Your task to perform on an android device: check battery use Image 0: 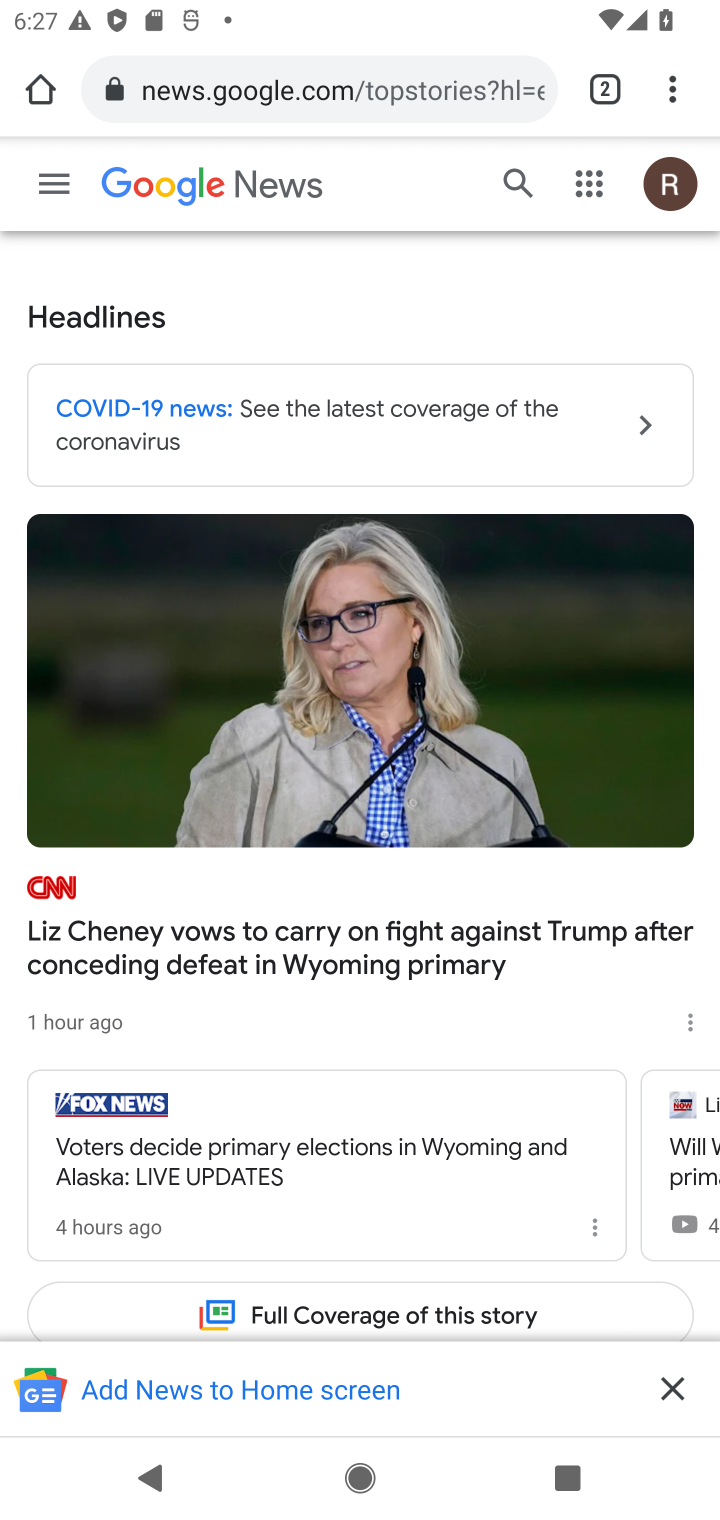
Step 0: click (663, 94)
Your task to perform on an android device: check battery use Image 1: 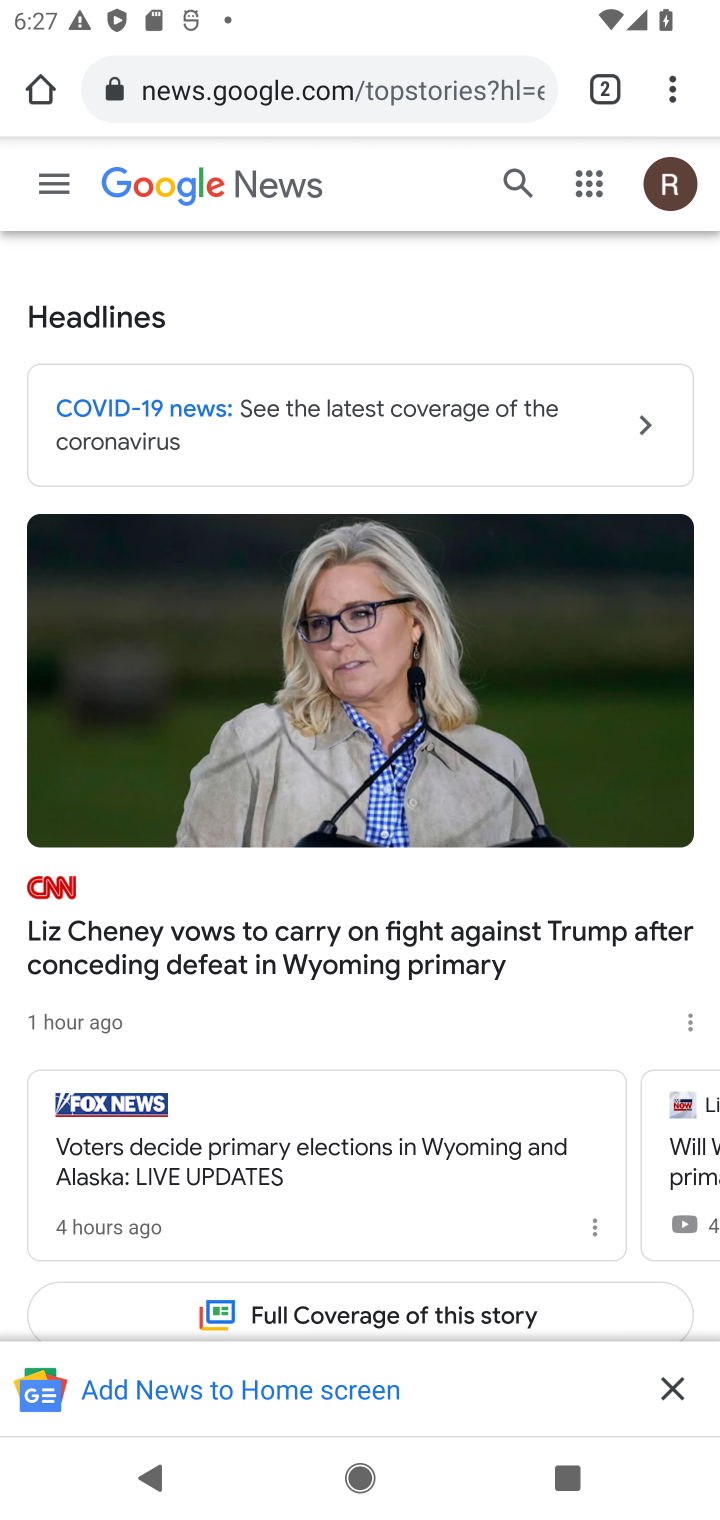
Step 1: press home button
Your task to perform on an android device: check battery use Image 2: 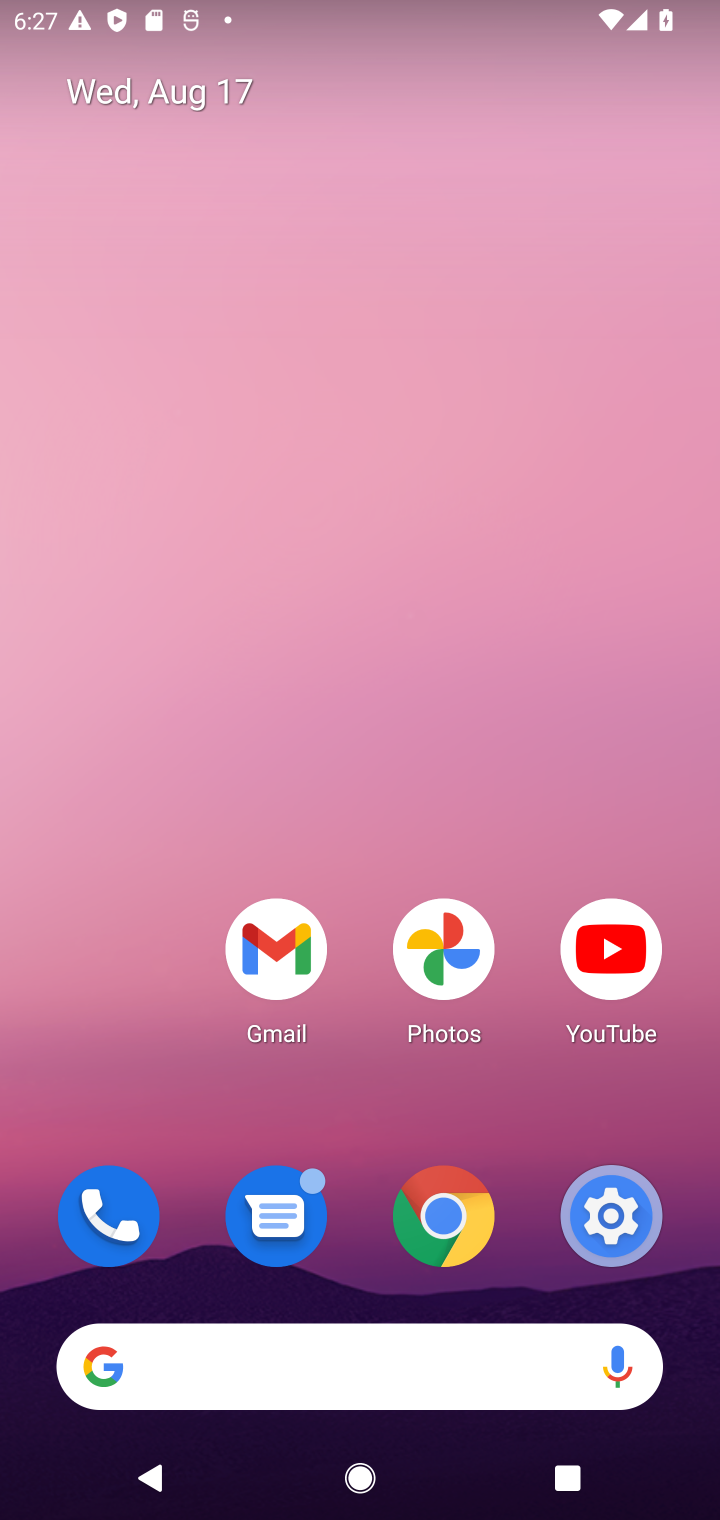
Step 2: click (625, 1222)
Your task to perform on an android device: check battery use Image 3: 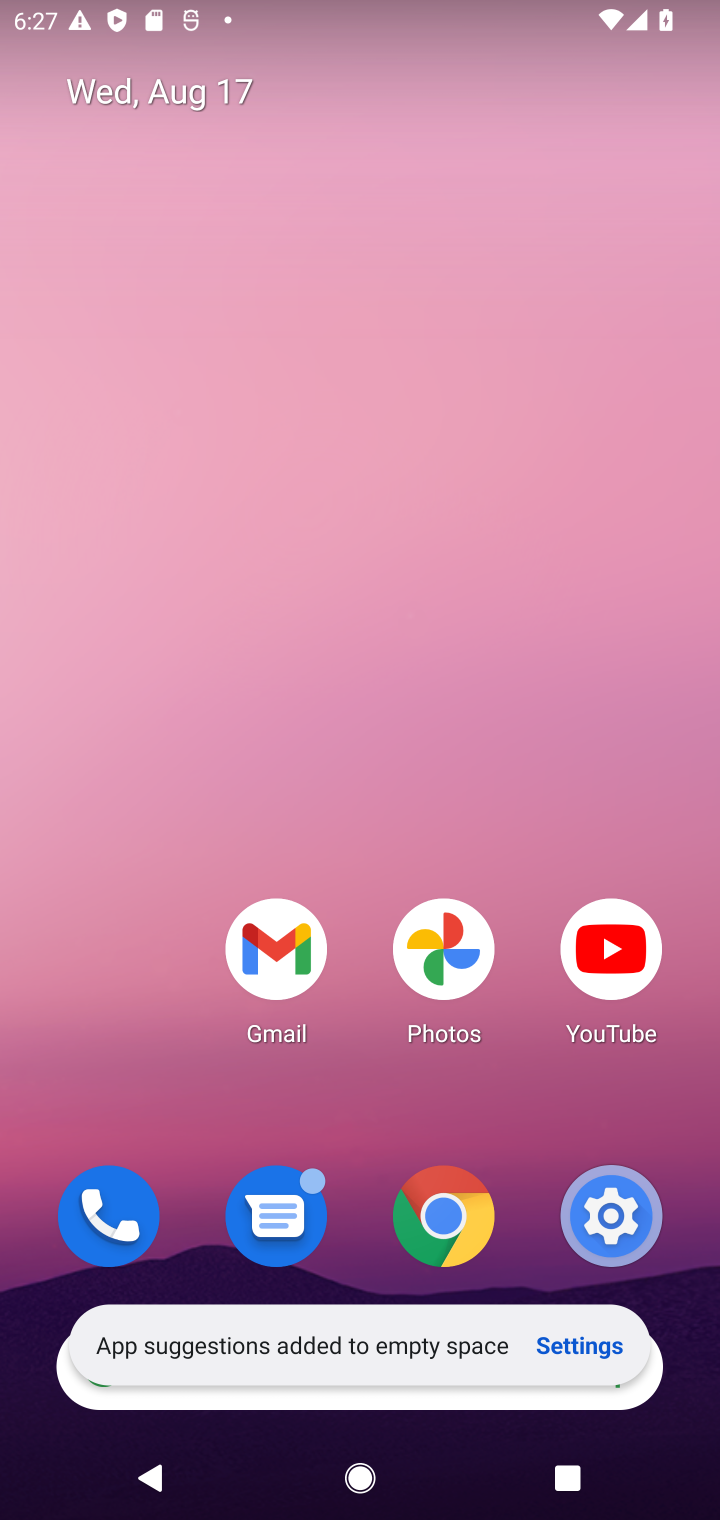
Step 3: click (622, 1222)
Your task to perform on an android device: check battery use Image 4: 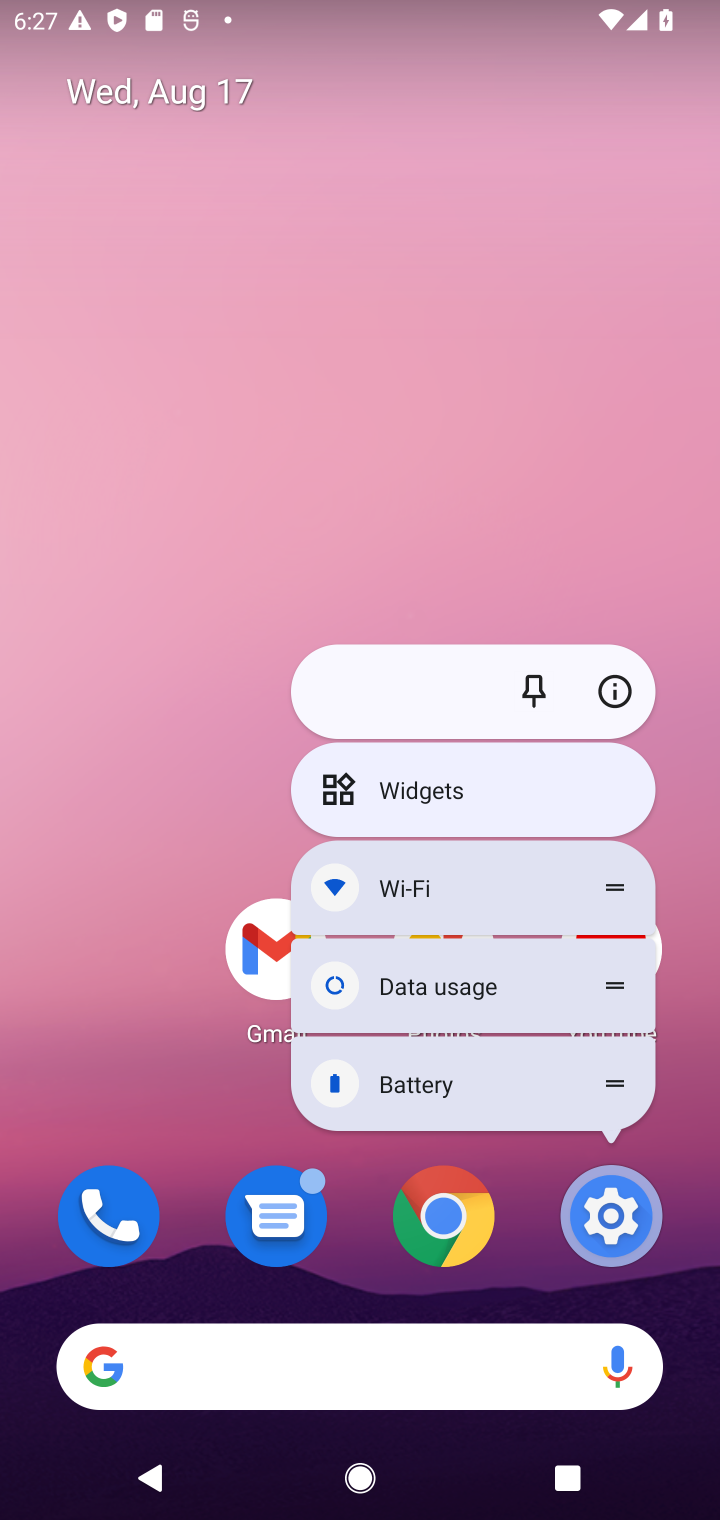
Step 4: click (613, 1203)
Your task to perform on an android device: check battery use Image 5: 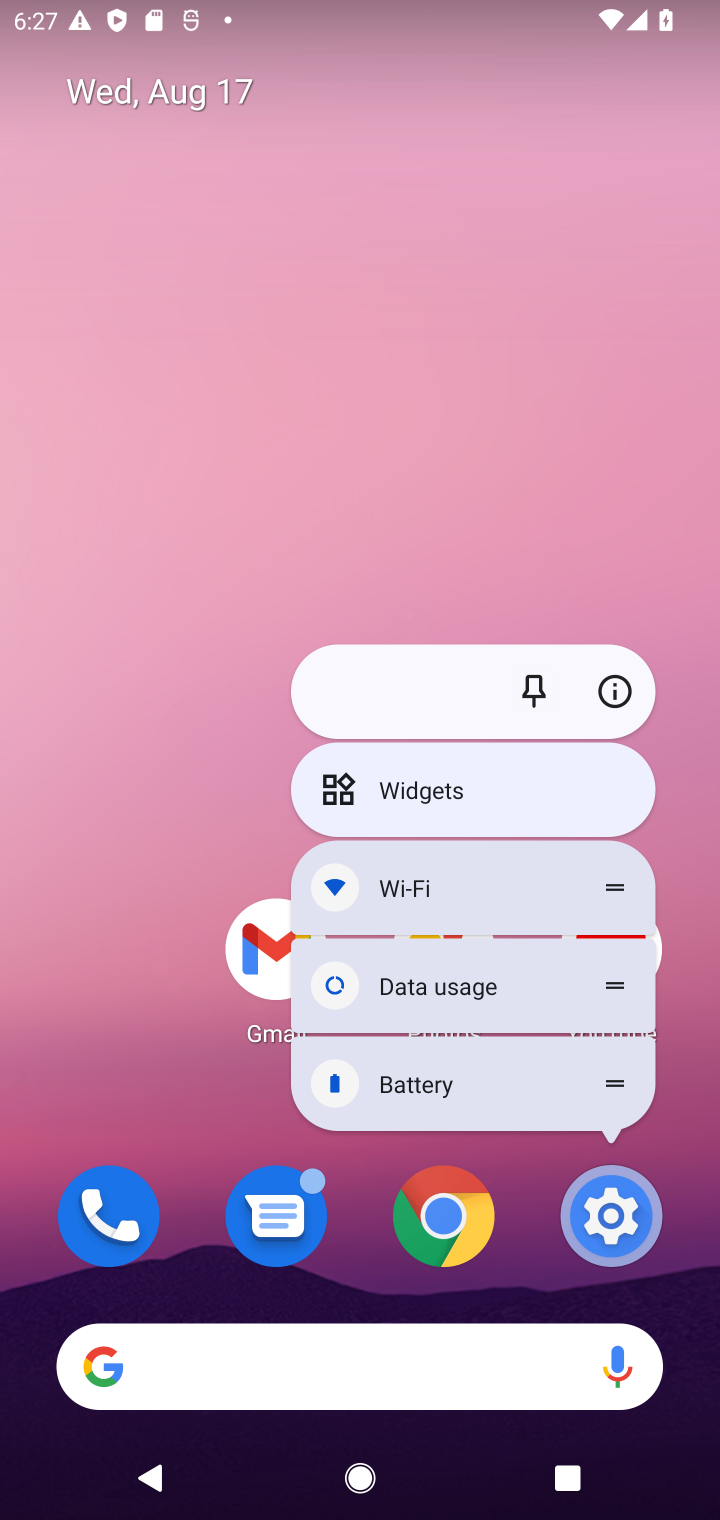
Step 5: click (596, 1200)
Your task to perform on an android device: check battery use Image 6: 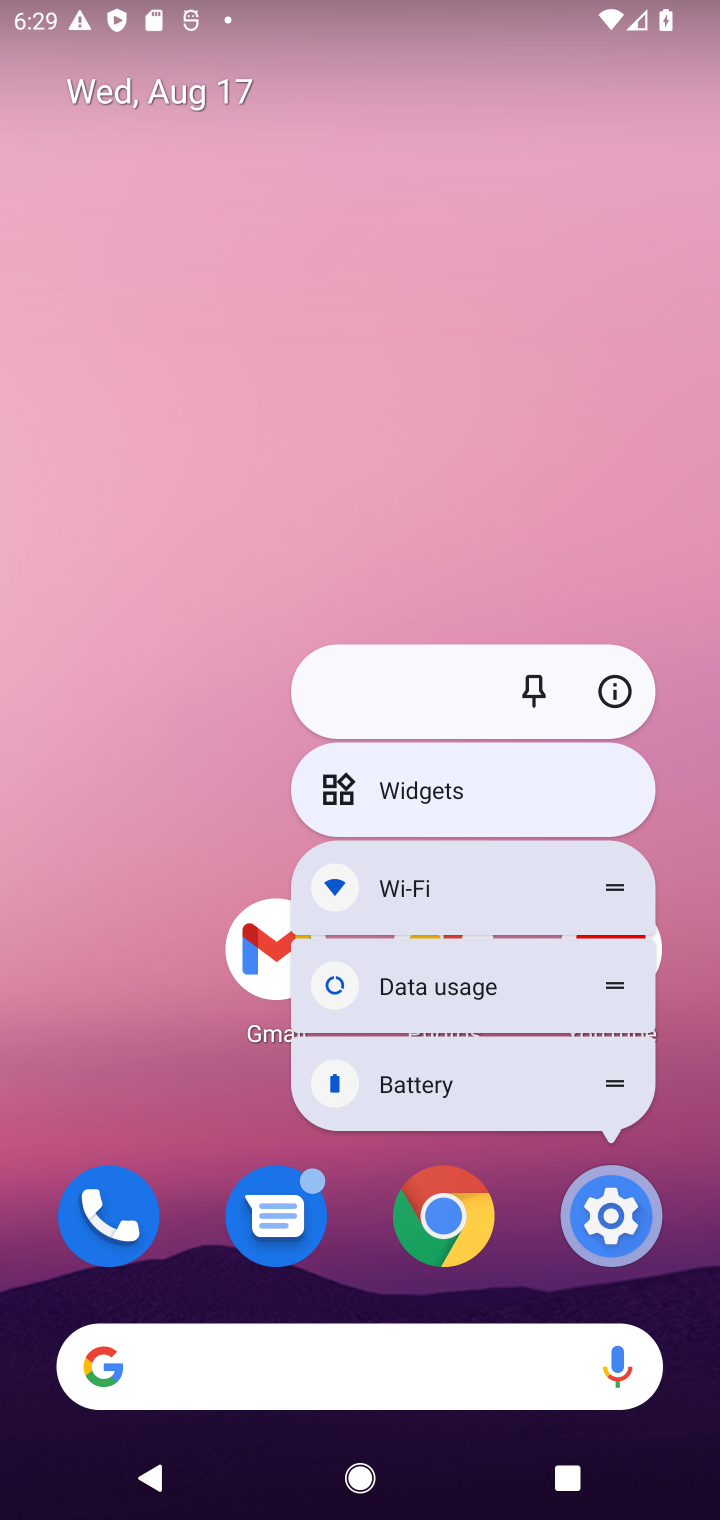
Step 6: click (620, 1248)
Your task to perform on an android device: check battery use Image 7: 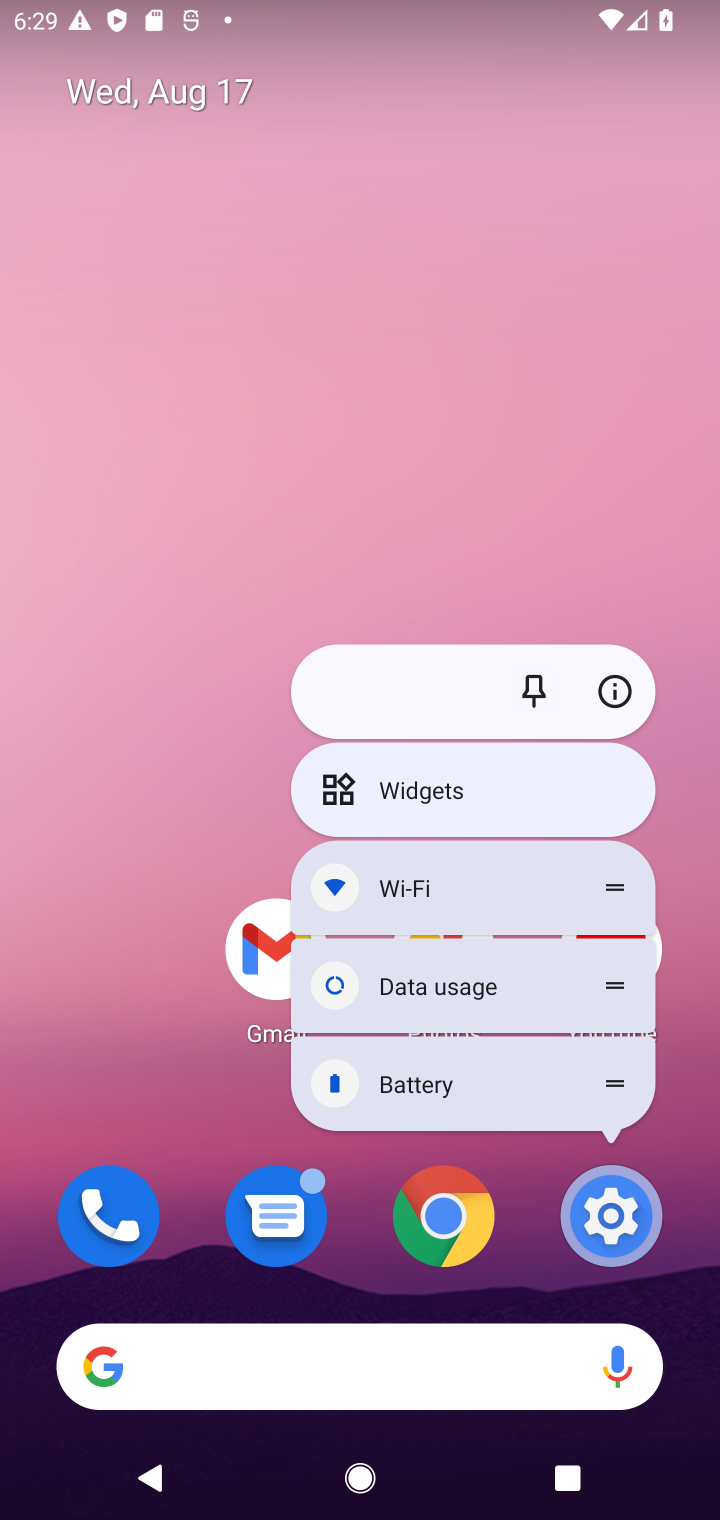
Step 7: click (621, 1234)
Your task to perform on an android device: check battery use Image 8: 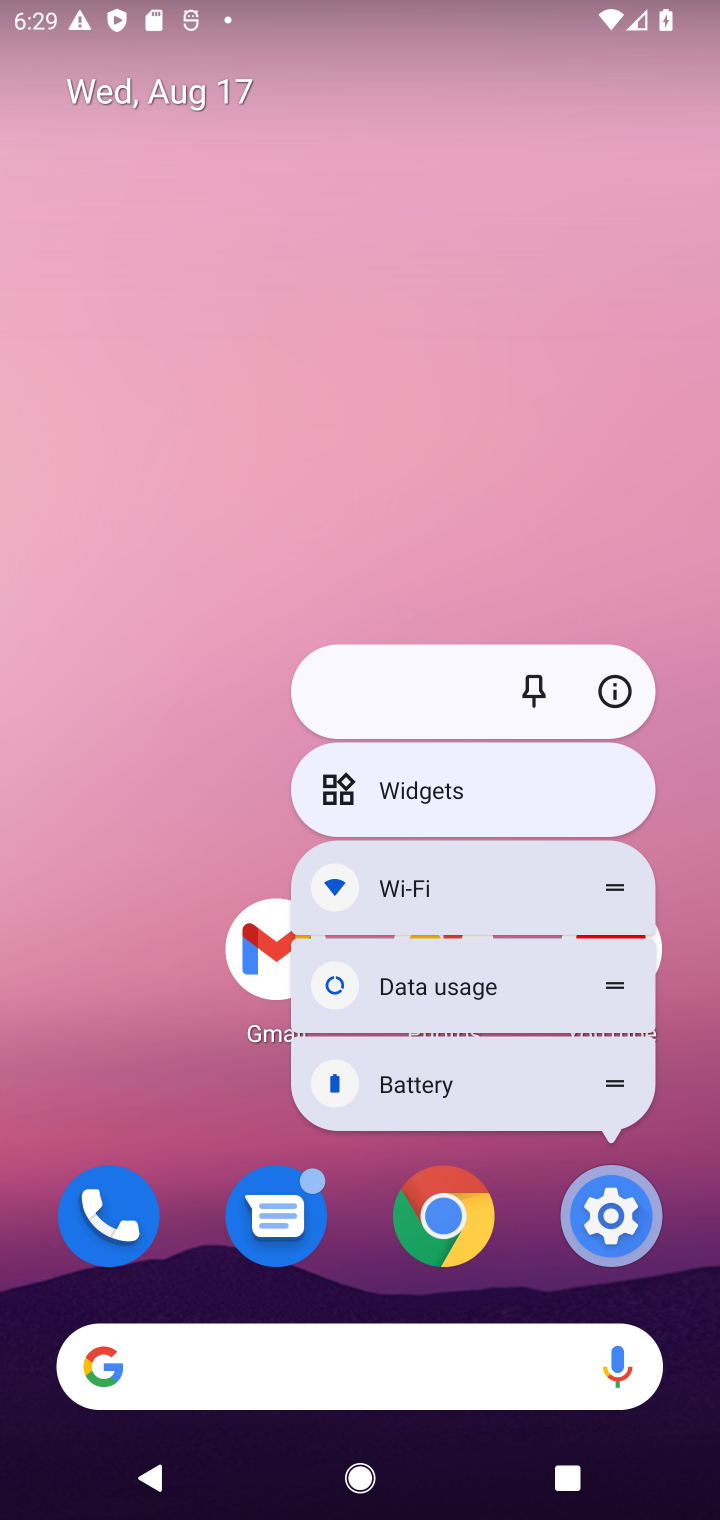
Step 8: drag from (186, 979) to (175, 51)
Your task to perform on an android device: check battery use Image 9: 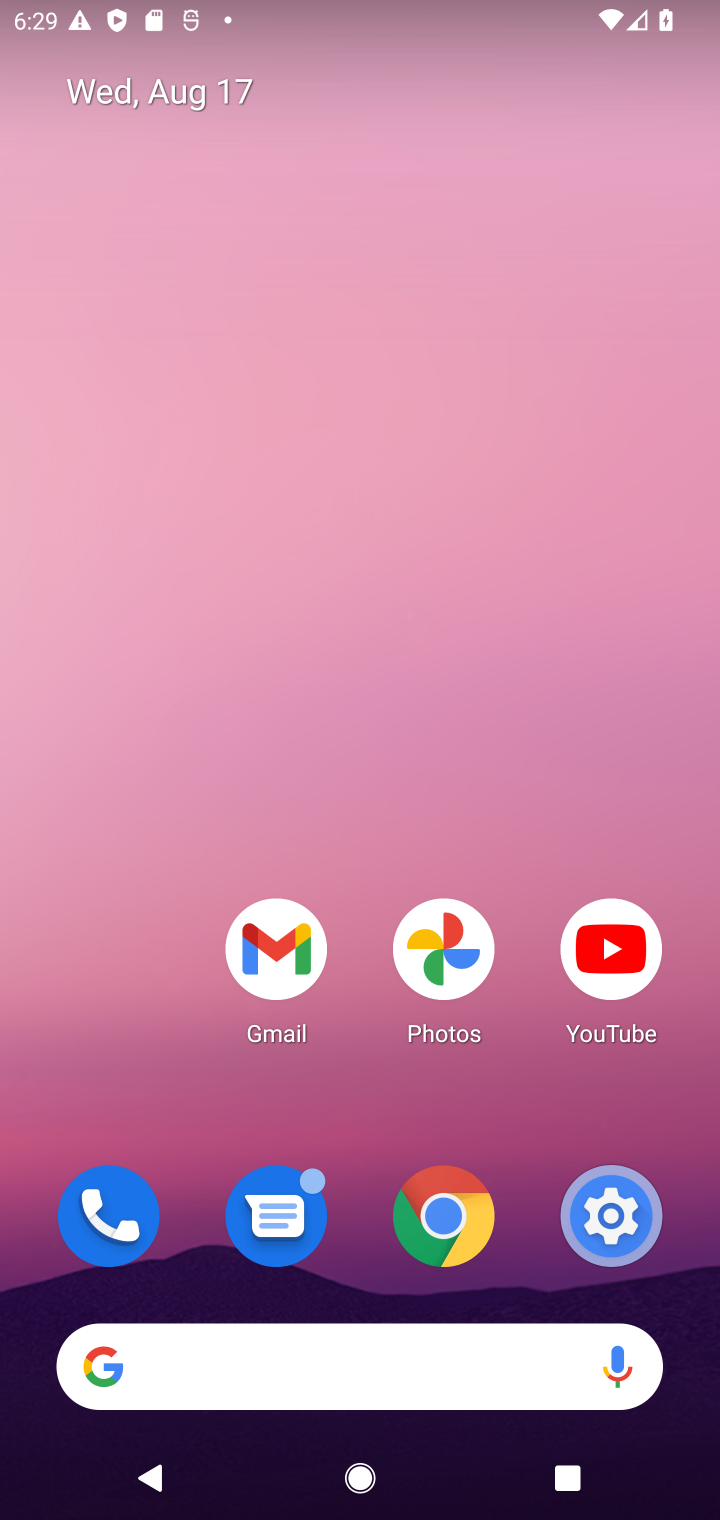
Step 9: drag from (381, 1038) to (386, 50)
Your task to perform on an android device: check battery use Image 10: 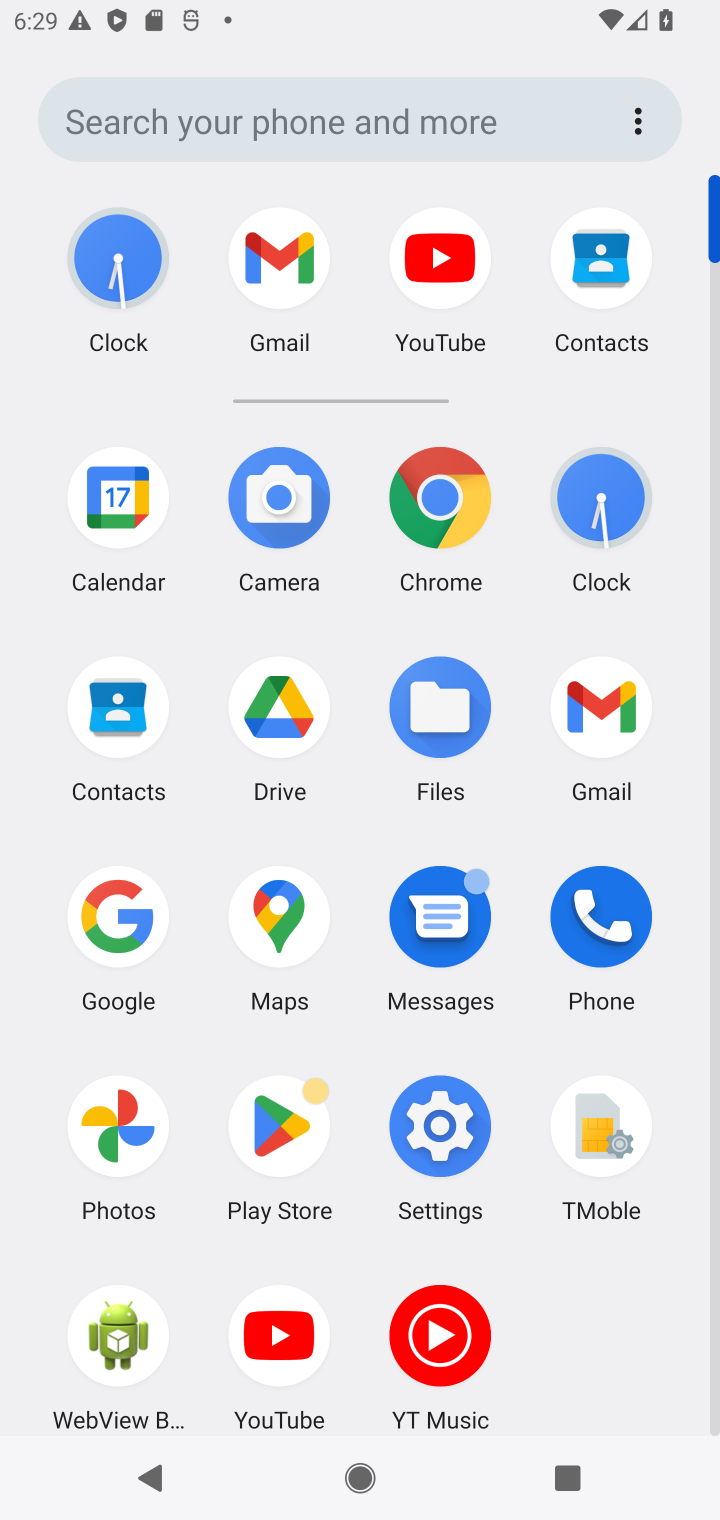
Step 10: click (439, 1136)
Your task to perform on an android device: check battery use Image 11: 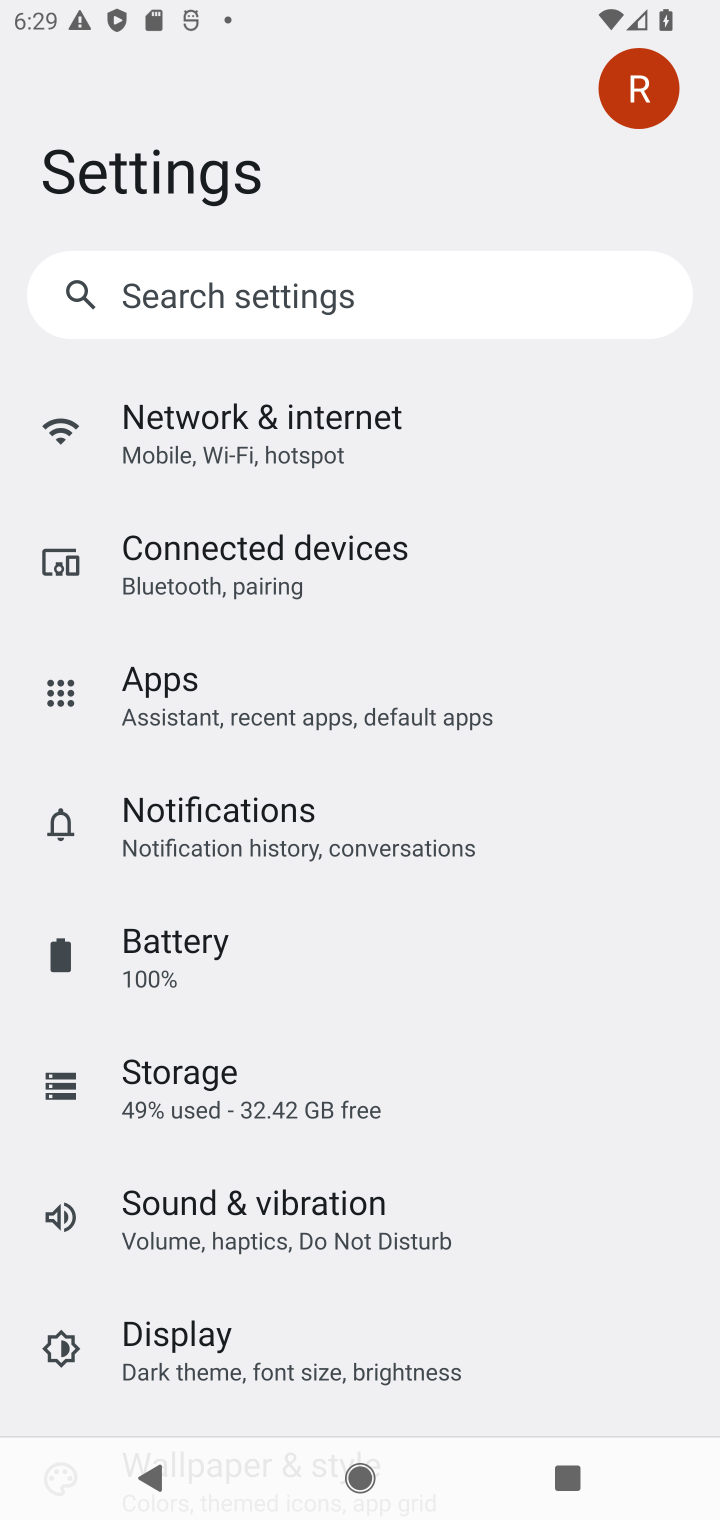
Step 11: click (164, 937)
Your task to perform on an android device: check battery use Image 12: 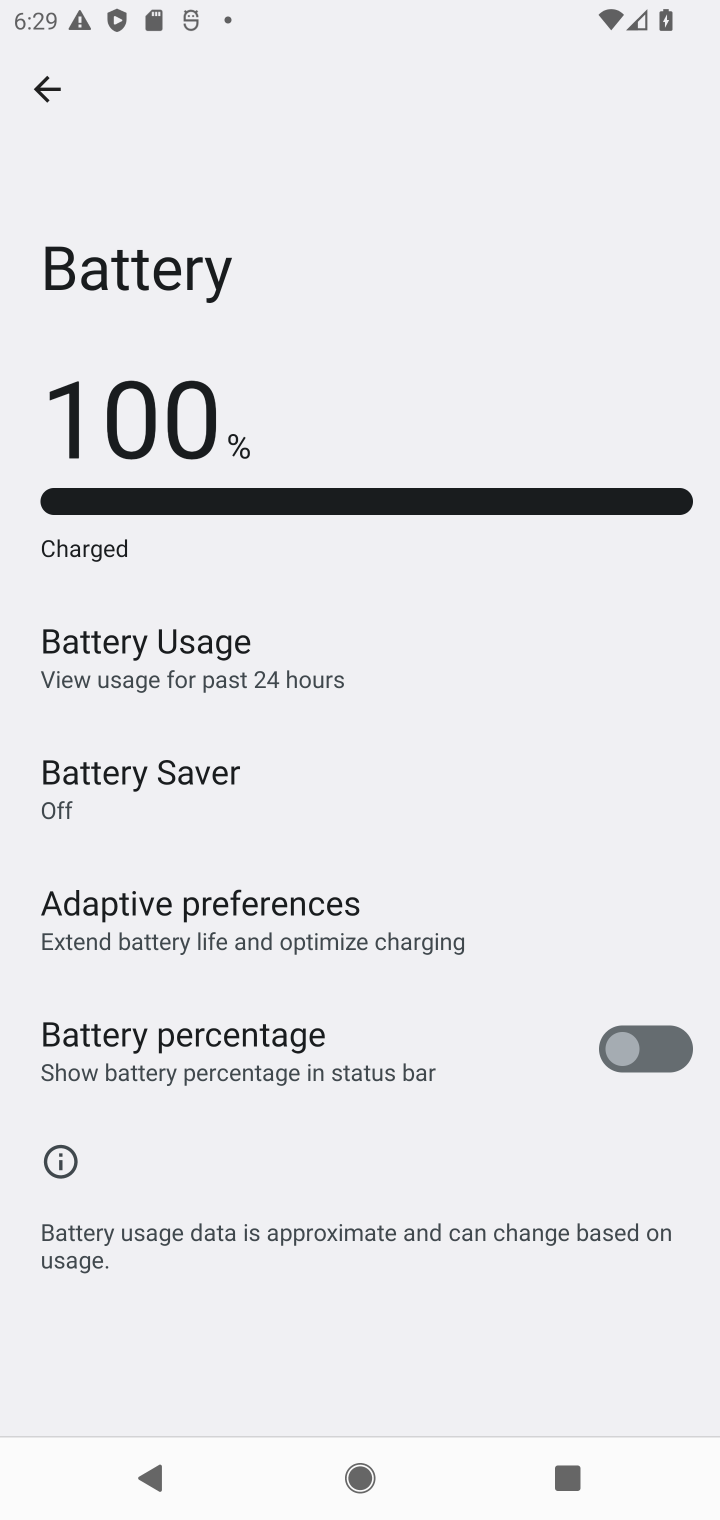
Step 12: task complete